Your task to perform on an android device: change the clock style Image 0: 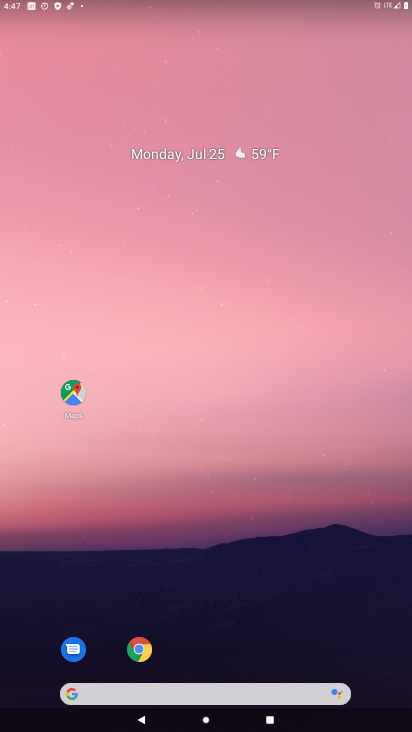
Step 0: drag from (345, 641) to (270, 1)
Your task to perform on an android device: change the clock style Image 1: 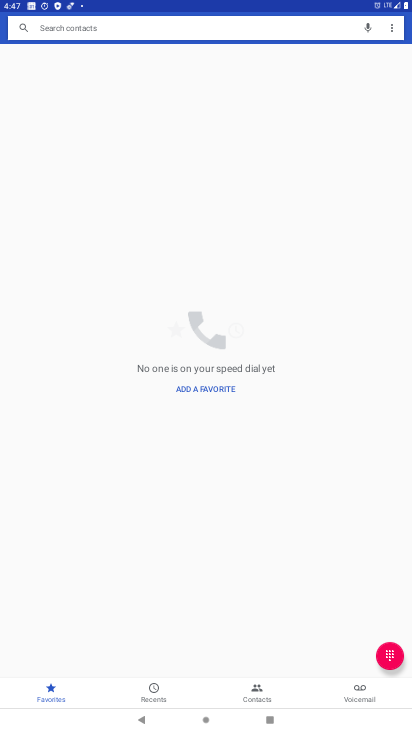
Step 1: press home button
Your task to perform on an android device: change the clock style Image 2: 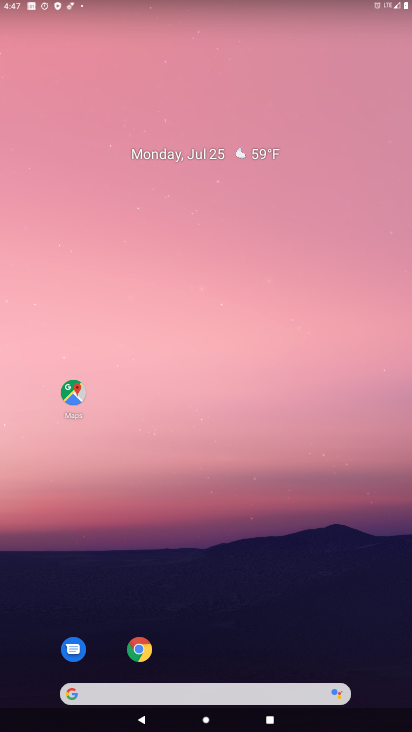
Step 2: drag from (247, 634) to (218, 99)
Your task to perform on an android device: change the clock style Image 3: 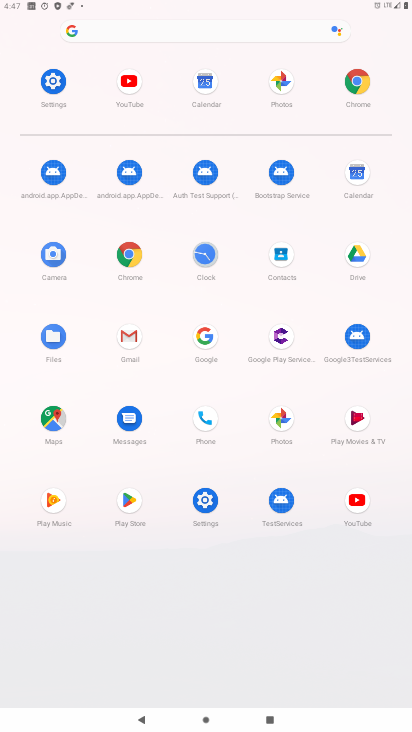
Step 3: click (205, 254)
Your task to perform on an android device: change the clock style Image 4: 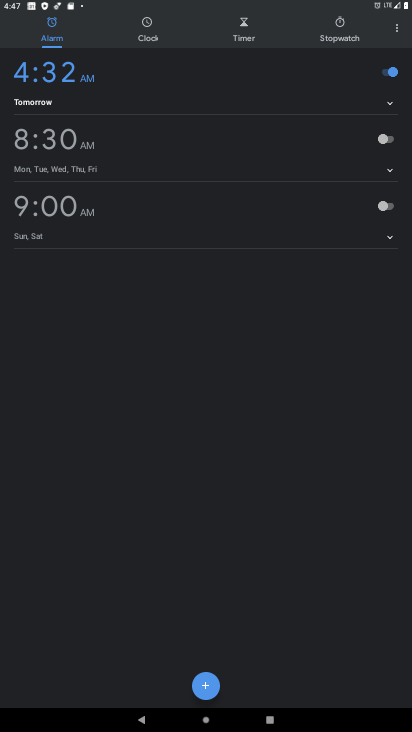
Step 4: click (404, 34)
Your task to perform on an android device: change the clock style Image 5: 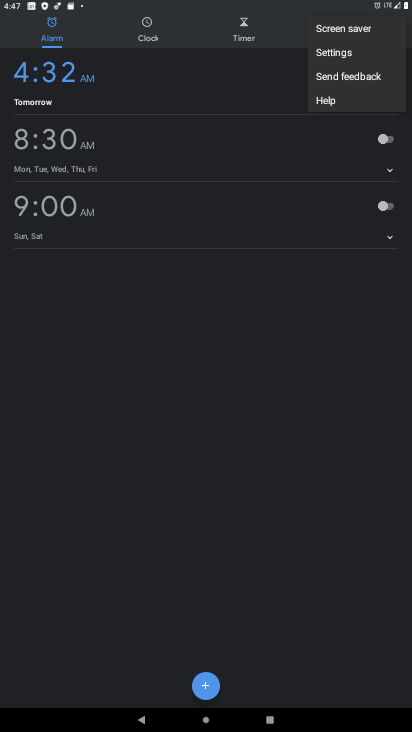
Step 5: click (342, 60)
Your task to perform on an android device: change the clock style Image 6: 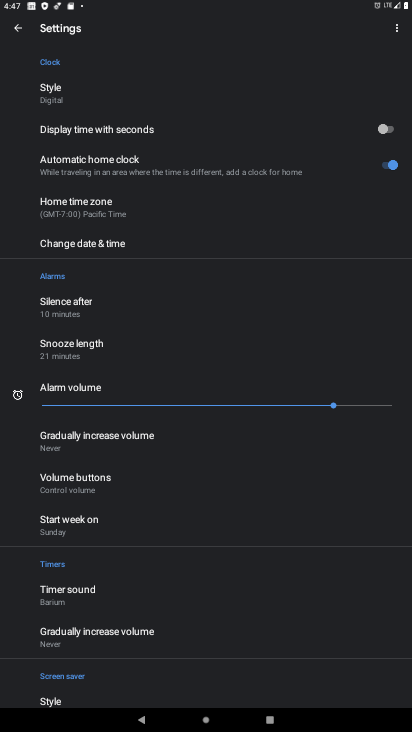
Step 6: click (149, 103)
Your task to perform on an android device: change the clock style Image 7: 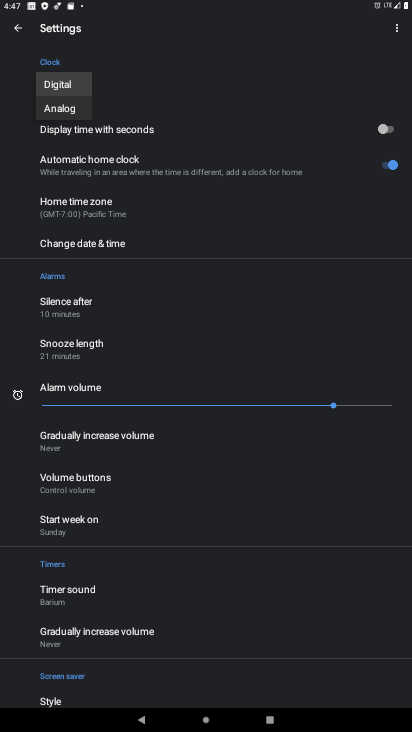
Step 7: click (65, 105)
Your task to perform on an android device: change the clock style Image 8: 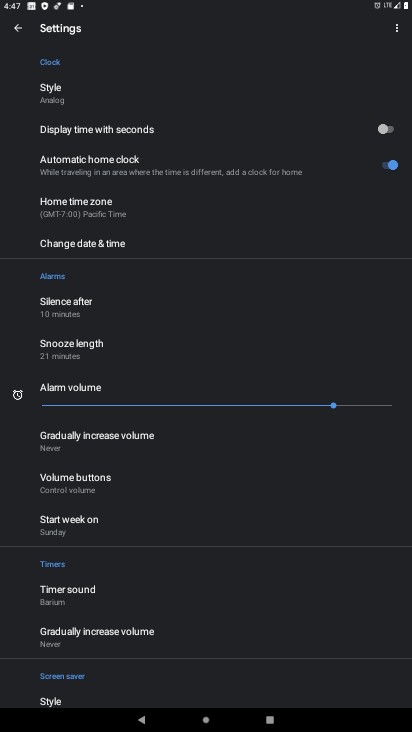
Step 8: task complete